Your task to perform on an android device: uninstall "Facebook" Image 0: 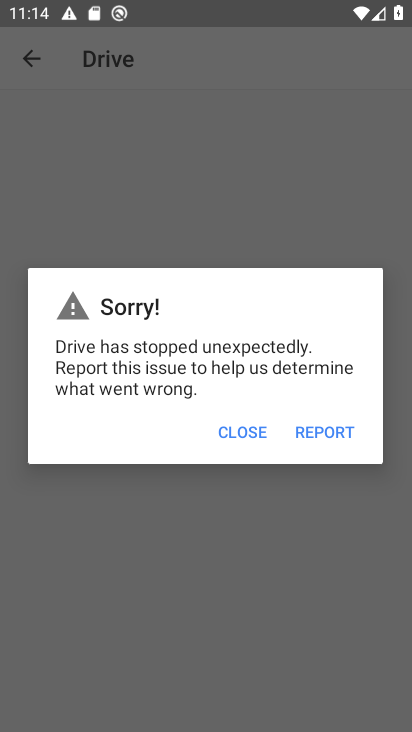
Step 0: press home button
Your task to perform on an android device: uninstall "Facebook" Image 1: 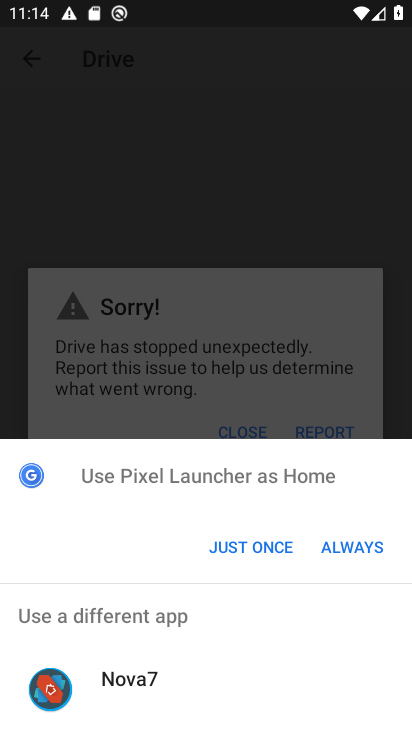
Step 1: click (349, 547)
Your task to perform on an android device: uninstall "Facebook" Image 2: 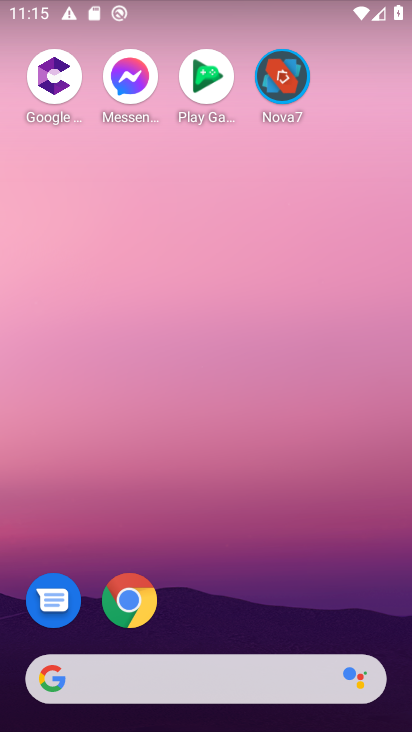
Step 2: drag from (202, 716) to (368, 42)
Your task to perform on an android device: uninstall "Facebook" Image 3: 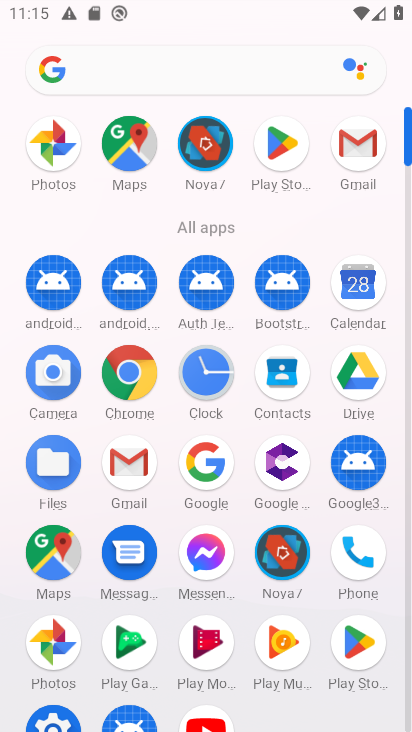
Step 3: click (260, 135)
Your task to perform on an android device: uninstall "Facebook" Image 4: 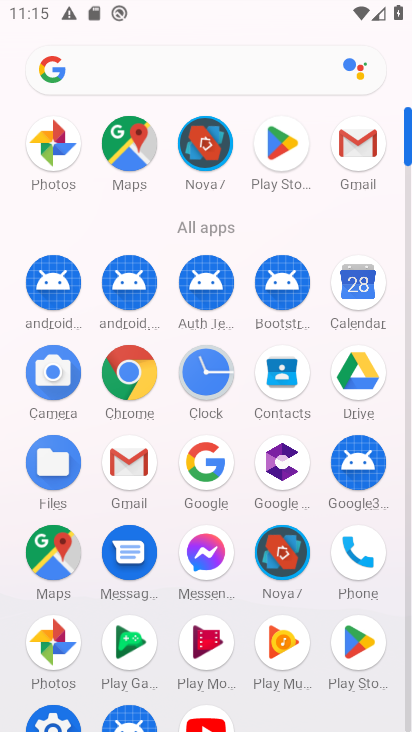
Step 4: click (260, 135)
Your task to perform on an android device: uninstall "Facebook" Image 5: 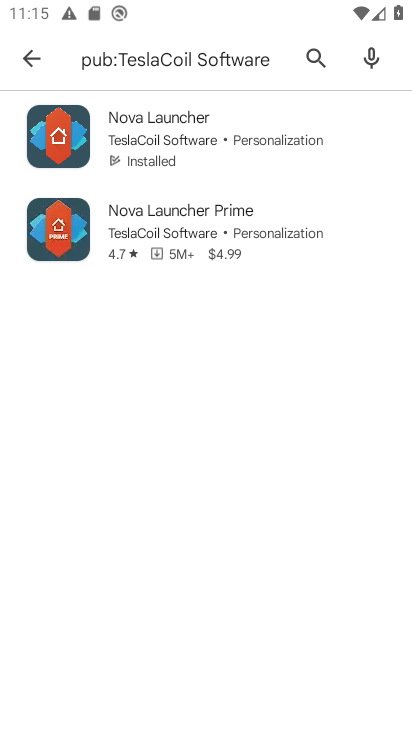
Step 5: click (316, 51)
Your task to perform on an android device: uninstall "Facebook" Image 6: 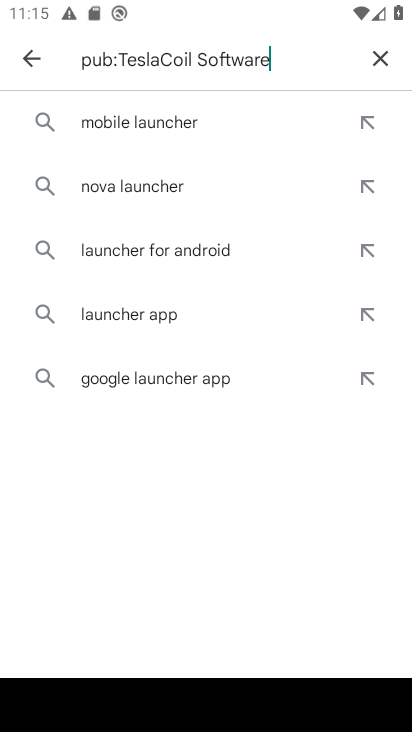
Step 6: click (381, 67)
Your task to perform on an android device: uninstall "Facebook" Image 7: 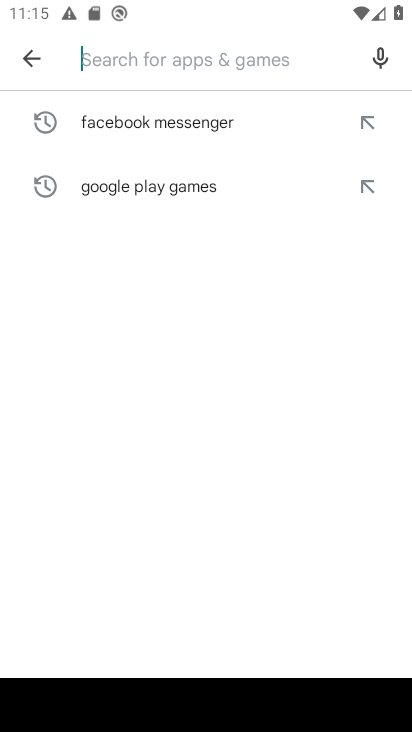
Step 7: type "Facebook"
Your task to perform on an android device: uninstall "Facebook" Image 8: 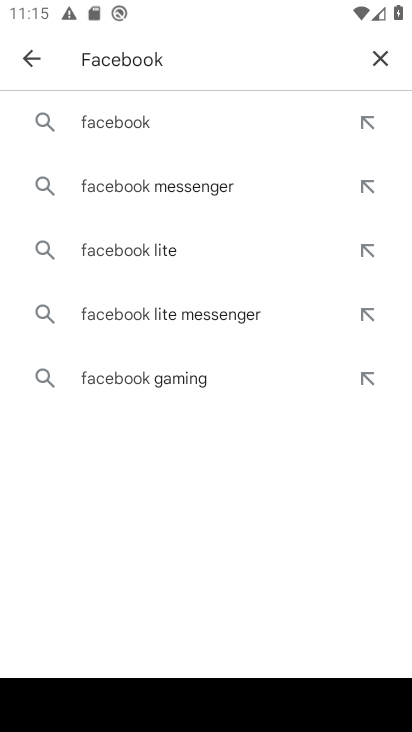
Step 8: click (151, 118)
Your task to perform on an android device: uninstall "Facebook" Image 9: 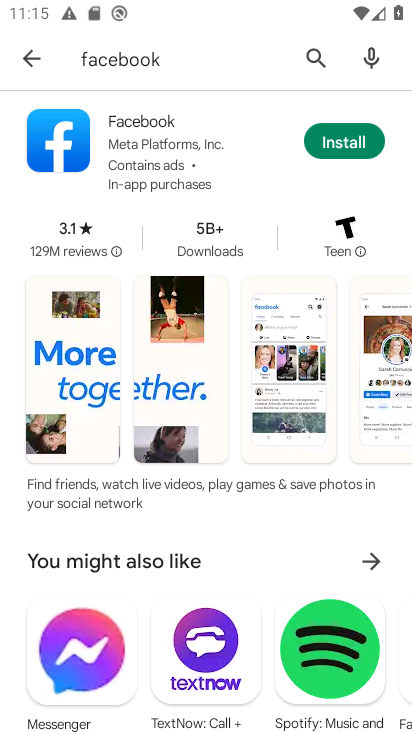
Step 9: task complete